Your task to perform on an android device: What's the weather going to be this weekend? Image 0: 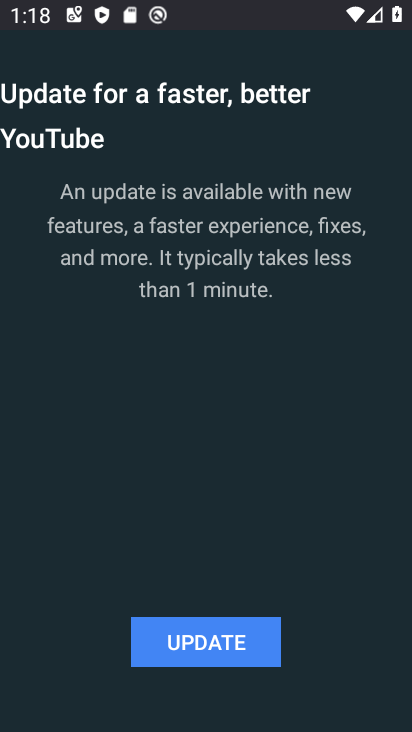
Step 0: press home button
Your task to perform on an android device: What's the weather going to be this weekend? Image 1: 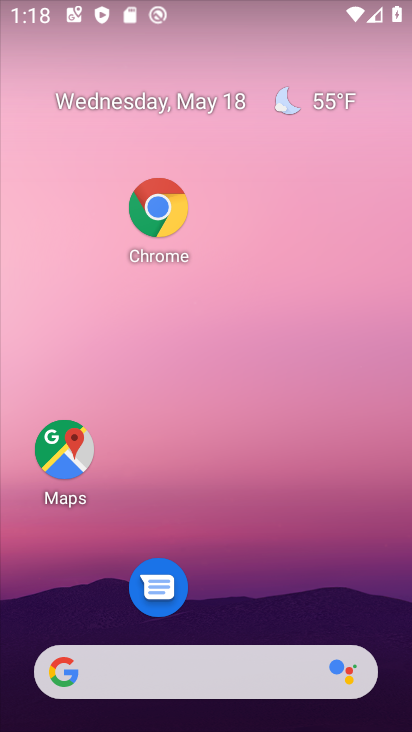
Step 1: drag from (259, 574) to (183, 241)
Your task to perform on an android device: What's the weather going to be this weekend? Image 2: 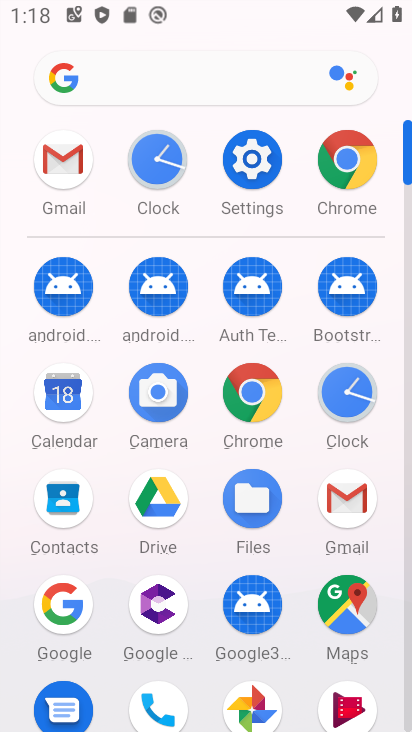
Step 2: click (53, 437)
Your task to perform on an android device: What's the weather going to be this weekend? Image 3: 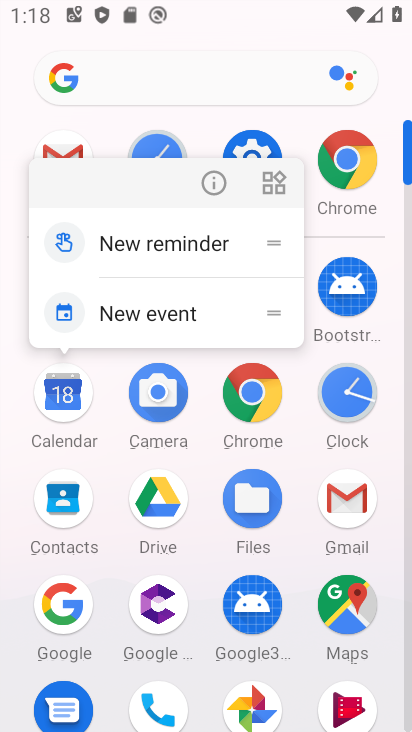
Step 3: click (44, 423)
Your task to perform on an android device: What's the weather going to be this weekend? Image 4: 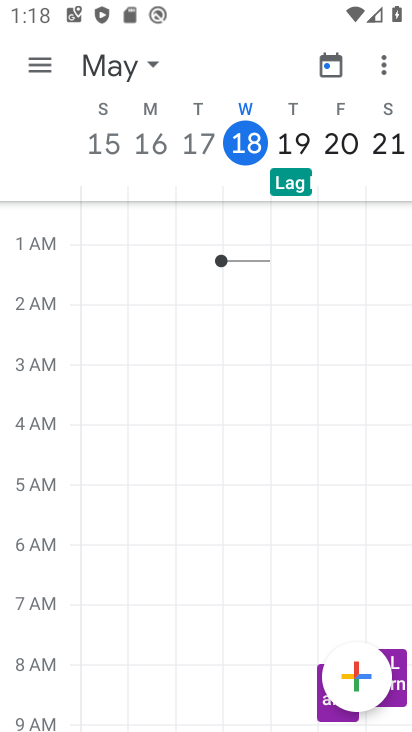
Step 4: press home button
Your task to perform on an android device: What's the weather going to be this weekend? Image 5: 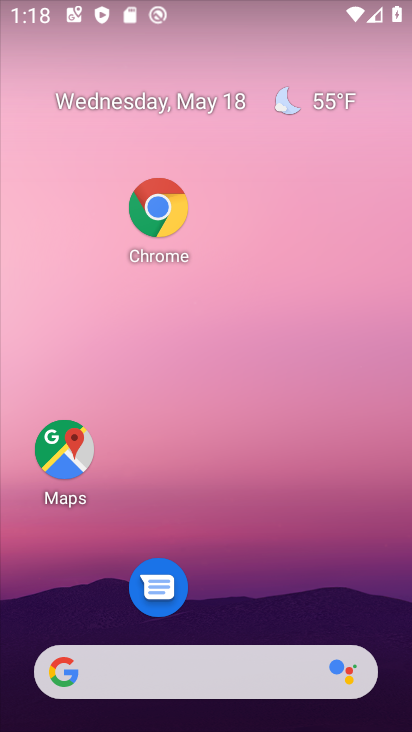
Step 5: click (122, 674)
Your task to perform on an android device: What's the weather going to be this weekend? Image 6: 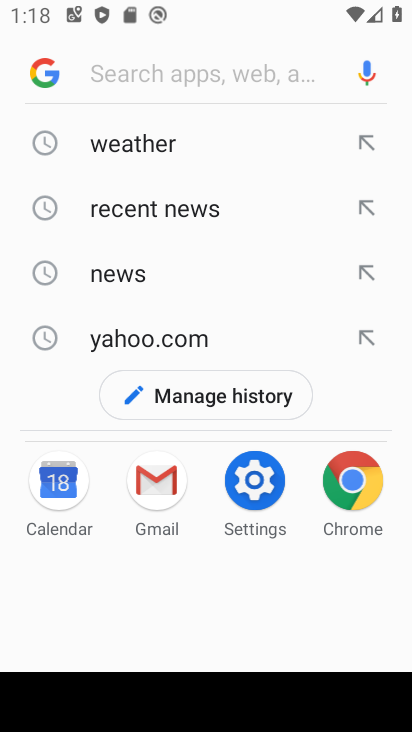
Step 6: click (156, 146)
Your task to perform on an android device: What's the weather going to be this weekend? Image 7: 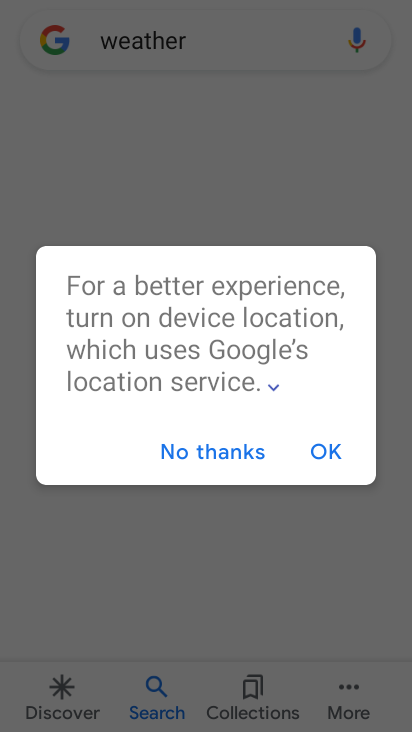
Step 7: click (251, 447)
Your task to perform on an android device: What's the weather going to be this weekend? Image 8: 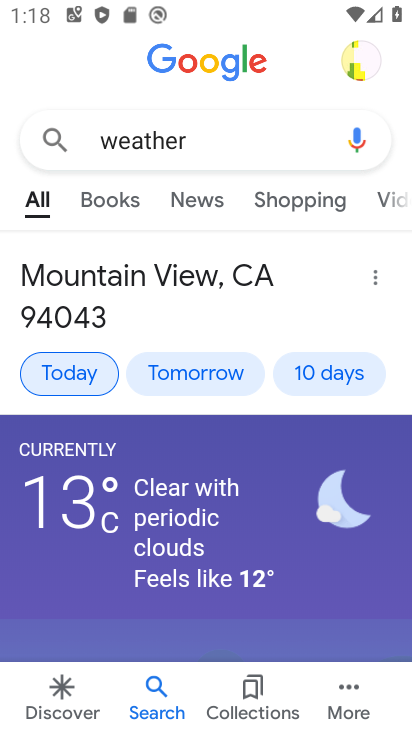
Step 8: click (319, 375)
Your task to perform on an android device: What's the weather going to be this weekend? Image 9: 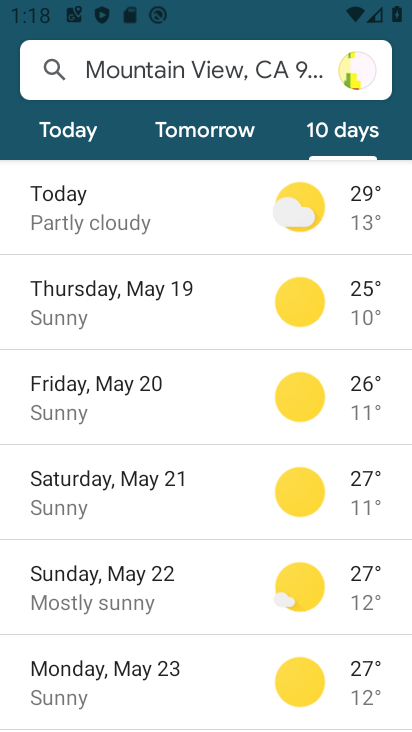
Step 9: task complete